Your task to perform on an android device: install app "Google Duo" Image 0: 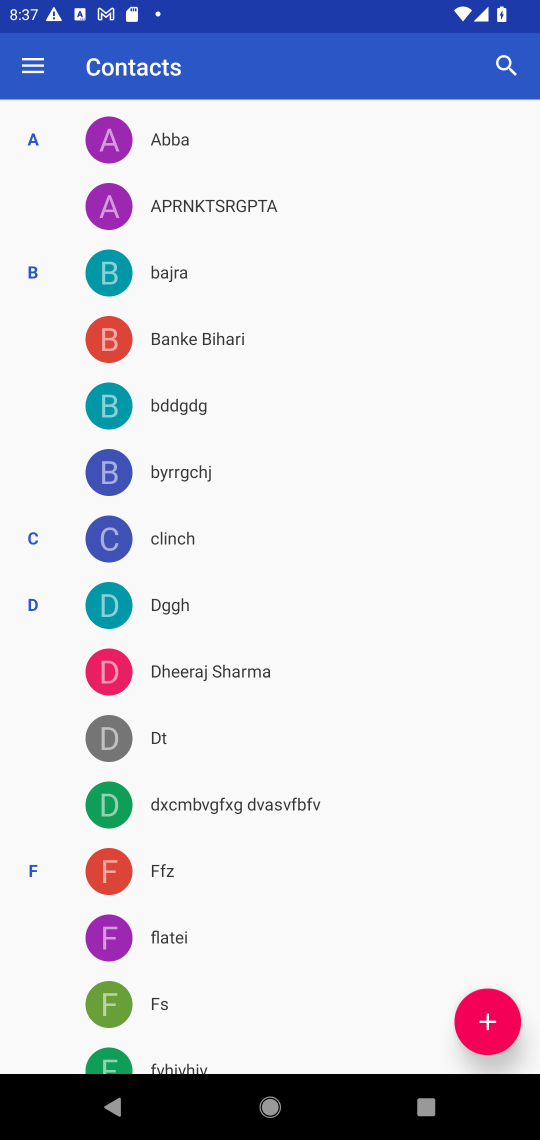
Step 0: press home button
Your task to perform on an android device: install app "Google Duo" Image 1: 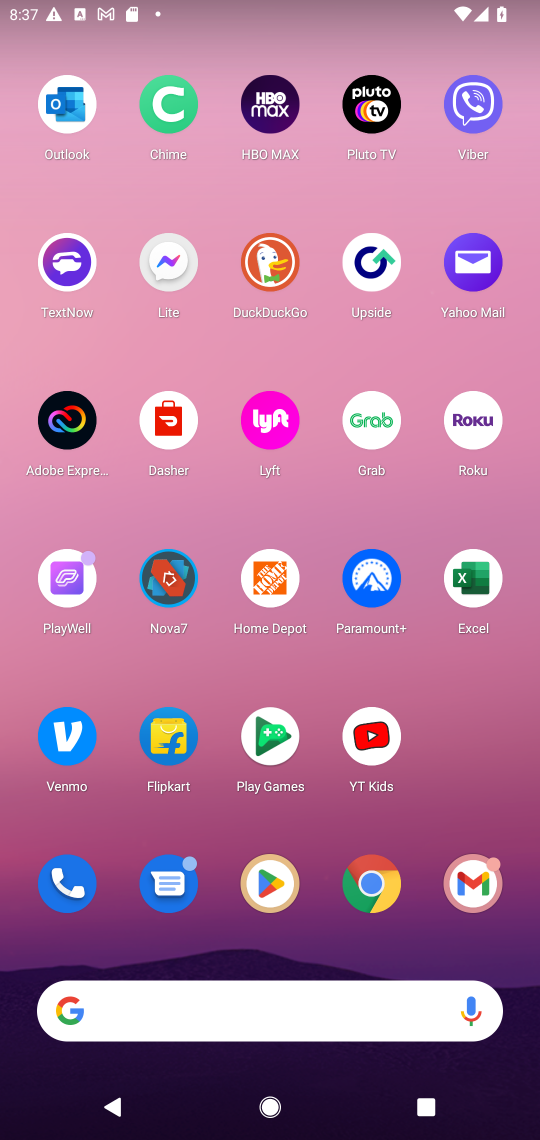
Step 1: click (274, 893)
Your task to perform on an android device: install app "Google Duo" Image 2: 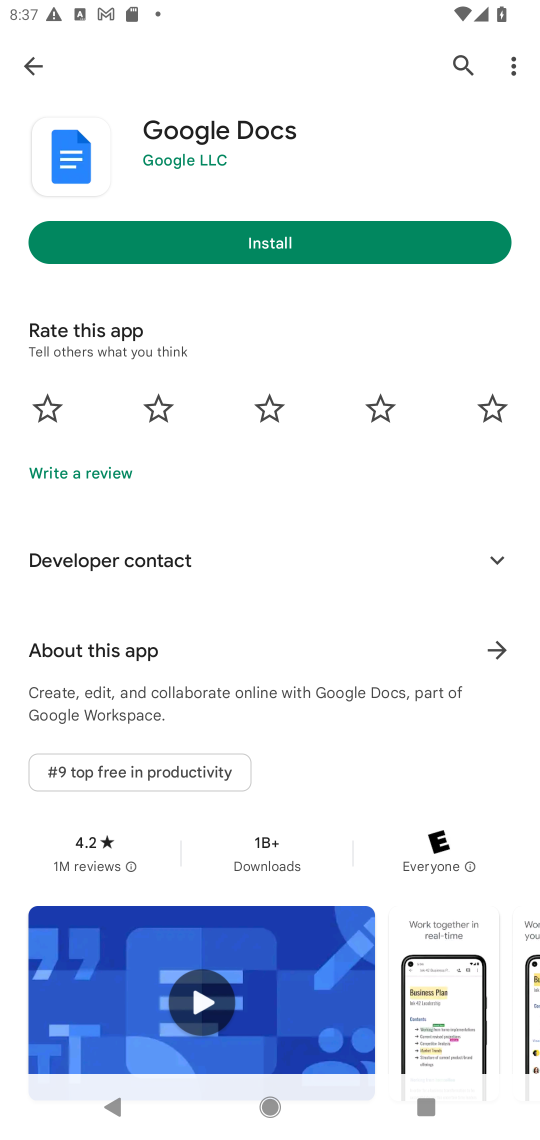
Step 2: click (459, 68)
Your task to perform on an android device: install app "Google Duo" Image 3: 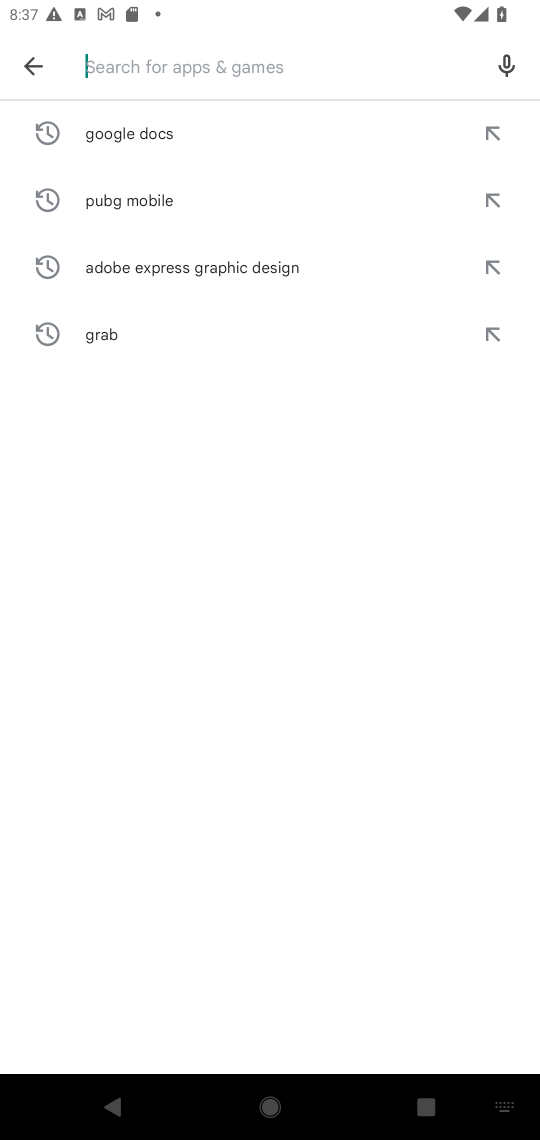
Step 3: type "Google Duo"
Your task to perform on an android device: install app "Google Duo" Image 4: 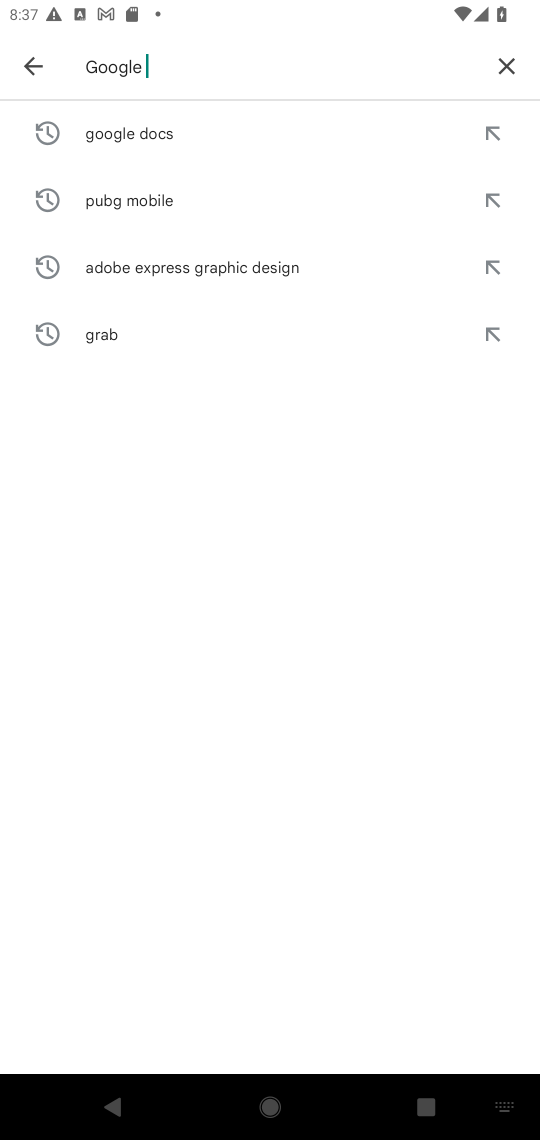
Step 4: type ""
Your task to perform on an android device: install app "Google Duo" Image 5: 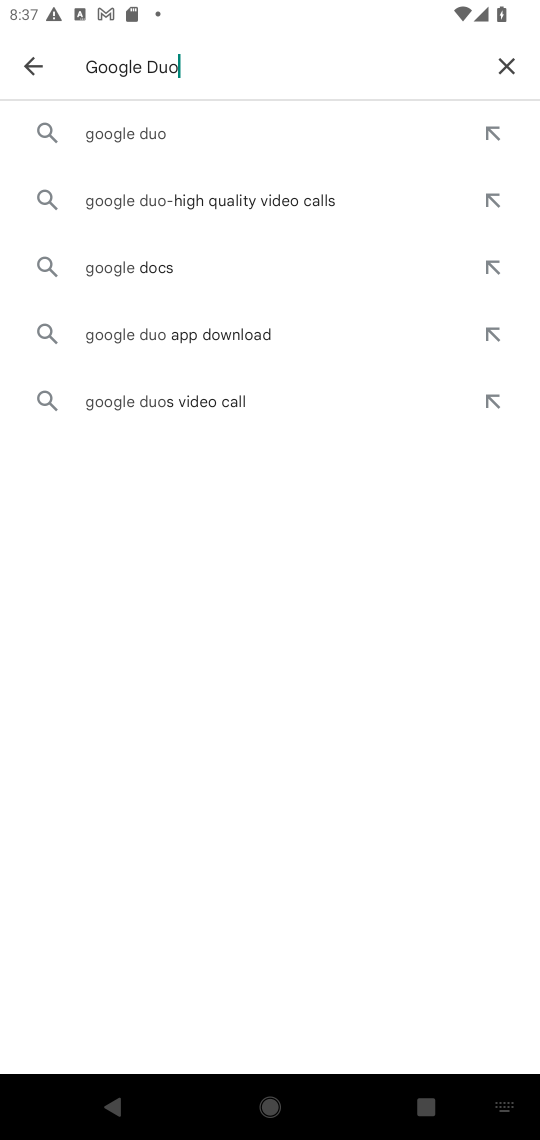
Step 5: click (183, 128)
Your task to perform on an android device: install app "Google Duo" Image 6: 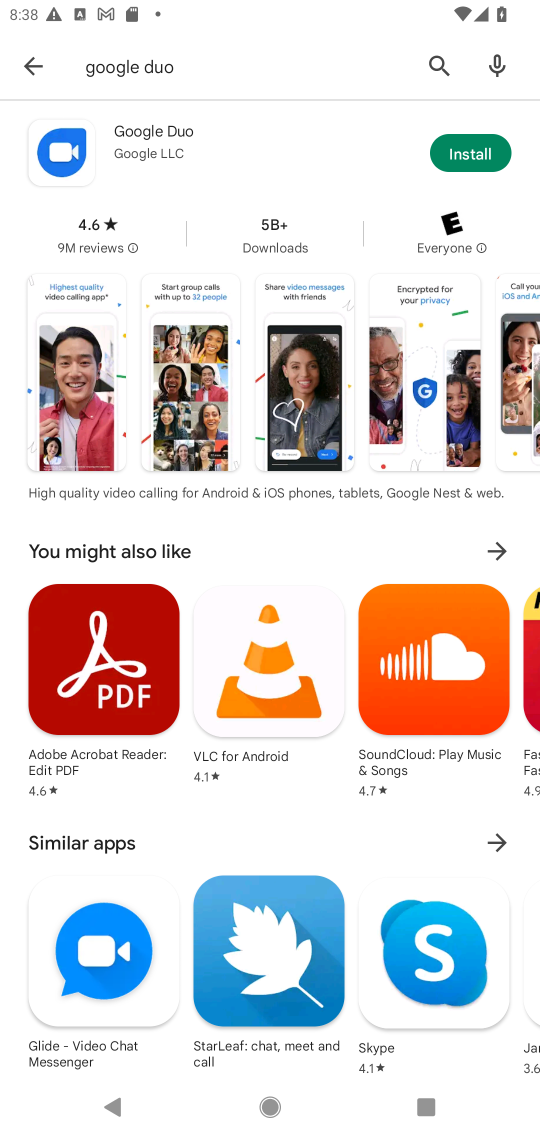
Step 6: click (453, 149)
Your task to perform on an android device: install app "Google Duo" Image 7: 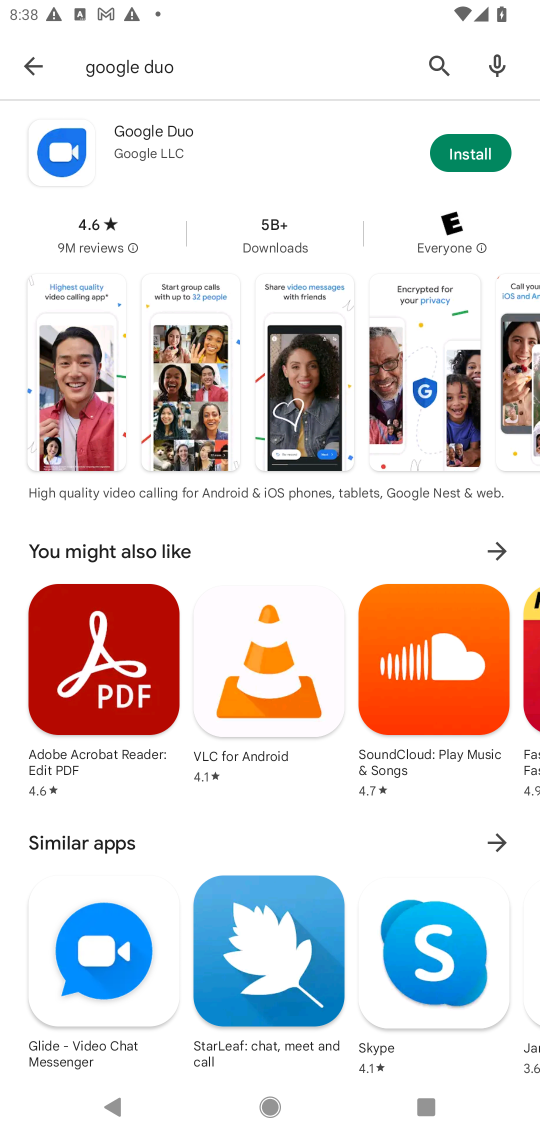
Step 7: click (451, 156)
Your task to perform on an android device: install app "Google Duo" Image 8: 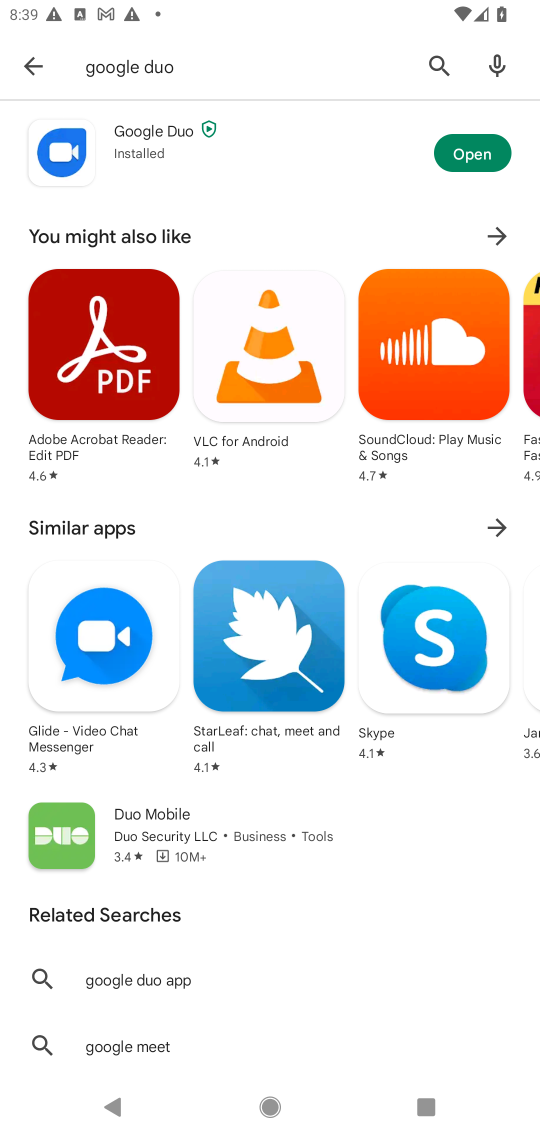
Step 8: task complete